Your task to perform on an android device: add a contact in the contacts app Image 0: 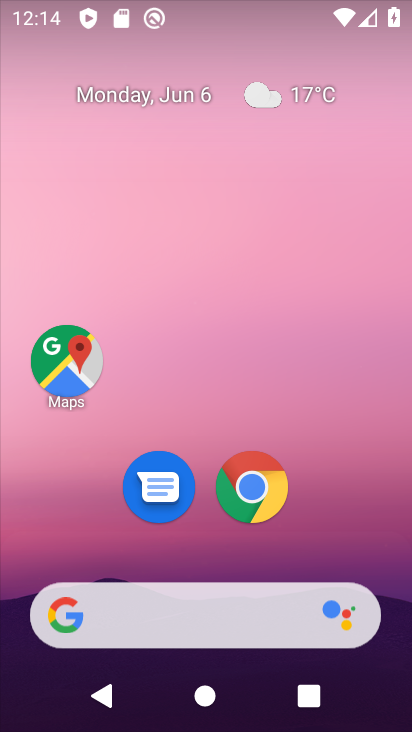
Step 0: drag from (363, 280) to (331, 114)
Your task to perform on an android device: add a contact in the contacts app Image 1: 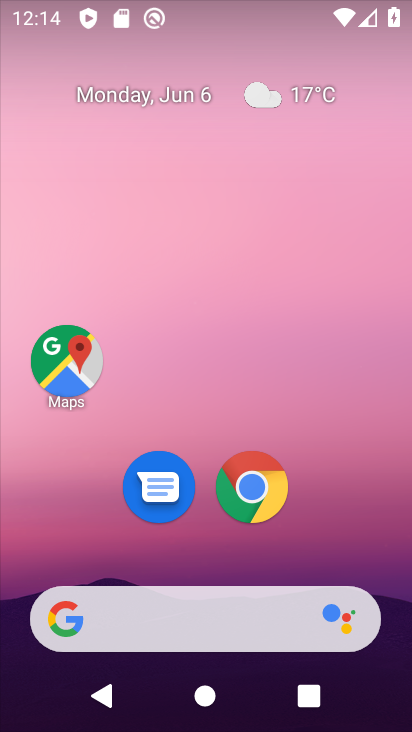
Step 1: drag from (396, 636) to (316, 67)
Your task to perform on an android device: add a contact in the contacts app Image 2: 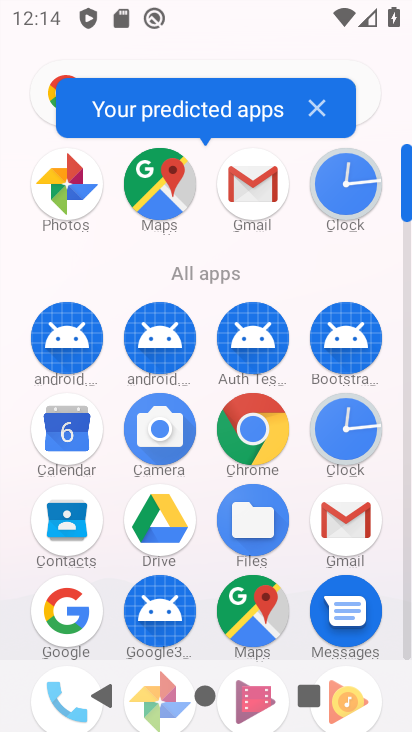
Step 2: click (62, 521)
Your task to perform on an android device: add a contact in the contacts app Image 3: 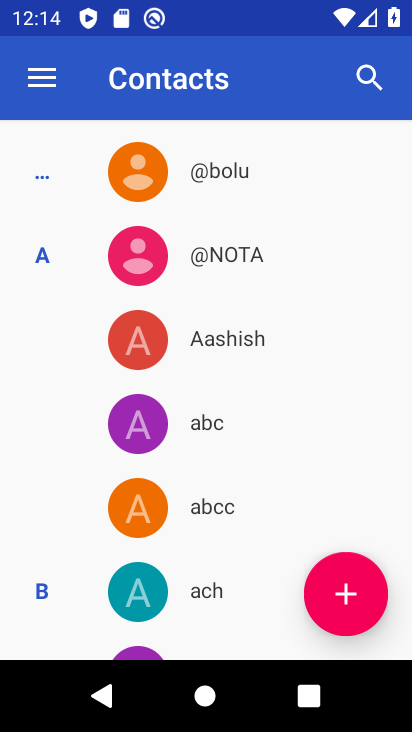
Step 3: click (340, 598)
Your task to perform on an android device: add a contact in the contacts app Image 4: 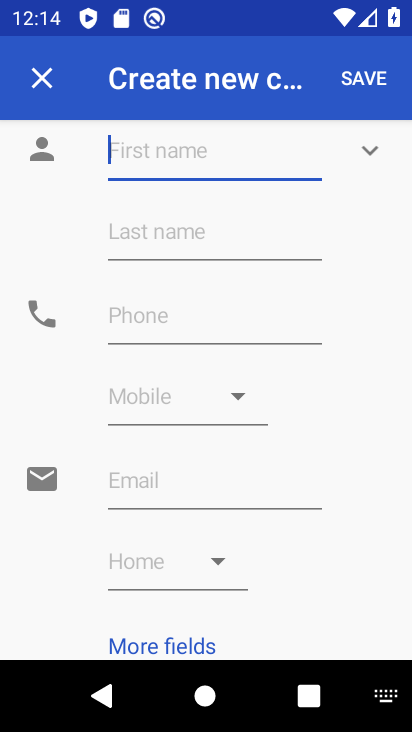
Step 4: type "bmcxsdd"
Your task to perform on an android device: add a contact in the contacts app Image 5: 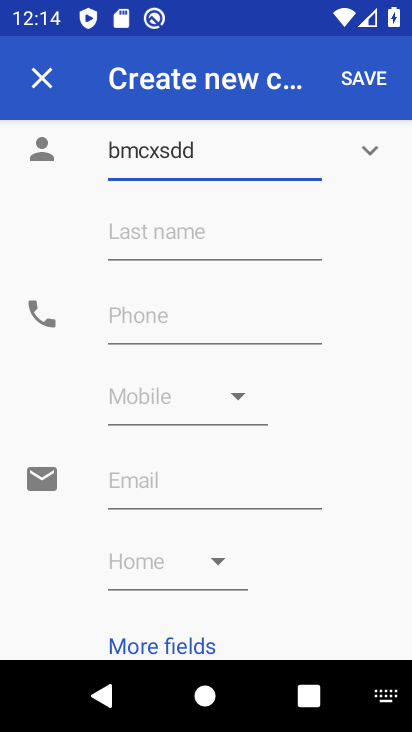
Step 5: click (131, 322)
Your task to perform on an android device: add a contact in the contacts app Image 6: 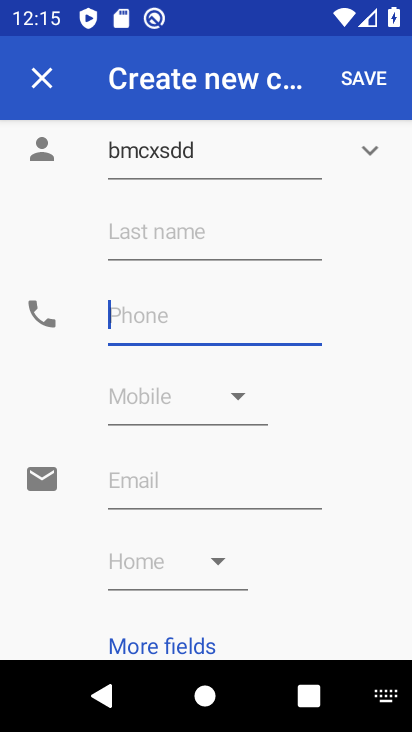
Step 6: type "876433356"
Your task to perform on an android device: add a contact in the contacts app Image 7: 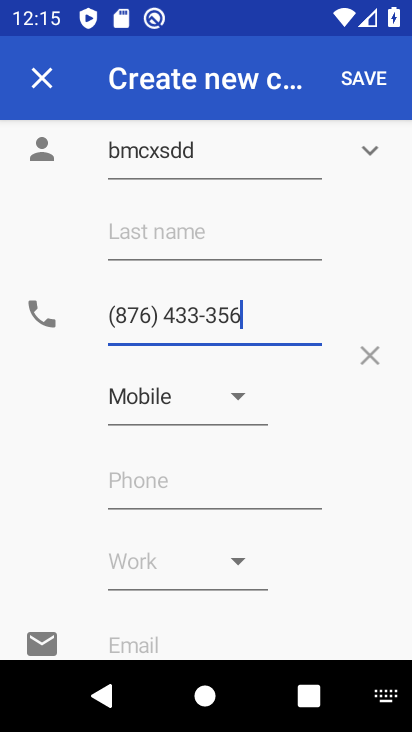
Step 7: click (367, 76)
Your task to perform on an android device: add a contact in the contacts app Image 8: 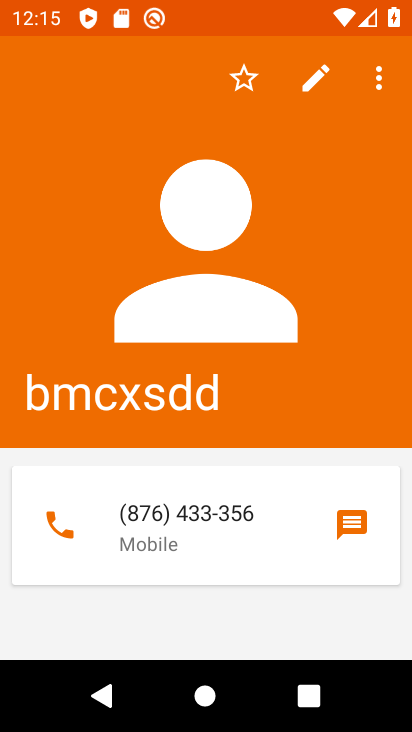
Step 8: task complete